Your task to perform on an android device: Check the news Image 0: 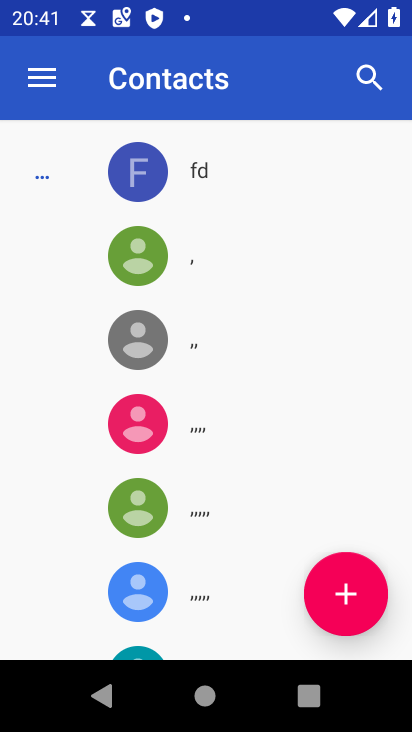
Step 0: press home button
Your task to perform on an android device: Check the news Image 1: 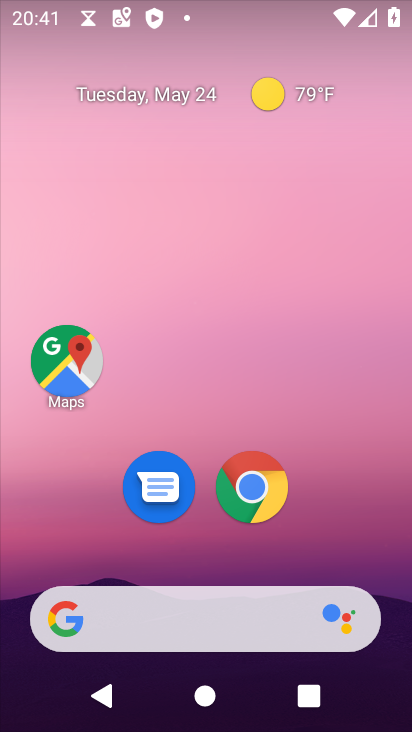
Step 1: click (189, 616)
Your task to perform on an android device: Check the news Image 2: 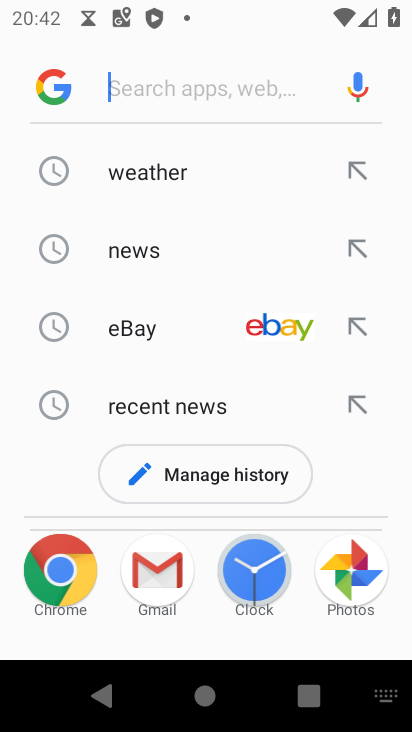
Step 2: click (117, 248)
Your task to perform on an android device: Check the news Image 3: 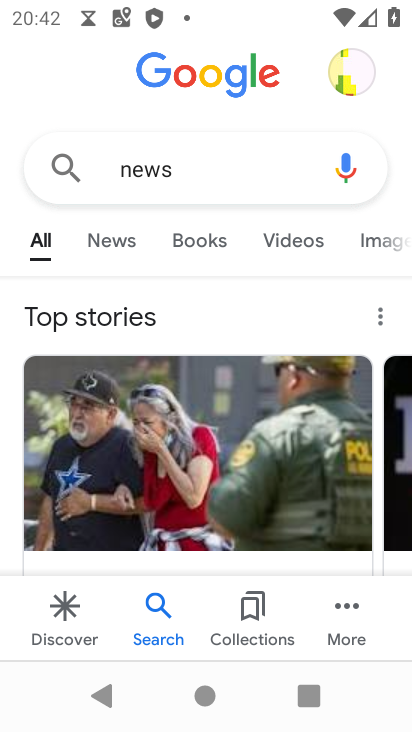
Step 3: task complete